Your task to perform on an android device: clear all cookies in the chrome app Image 0: 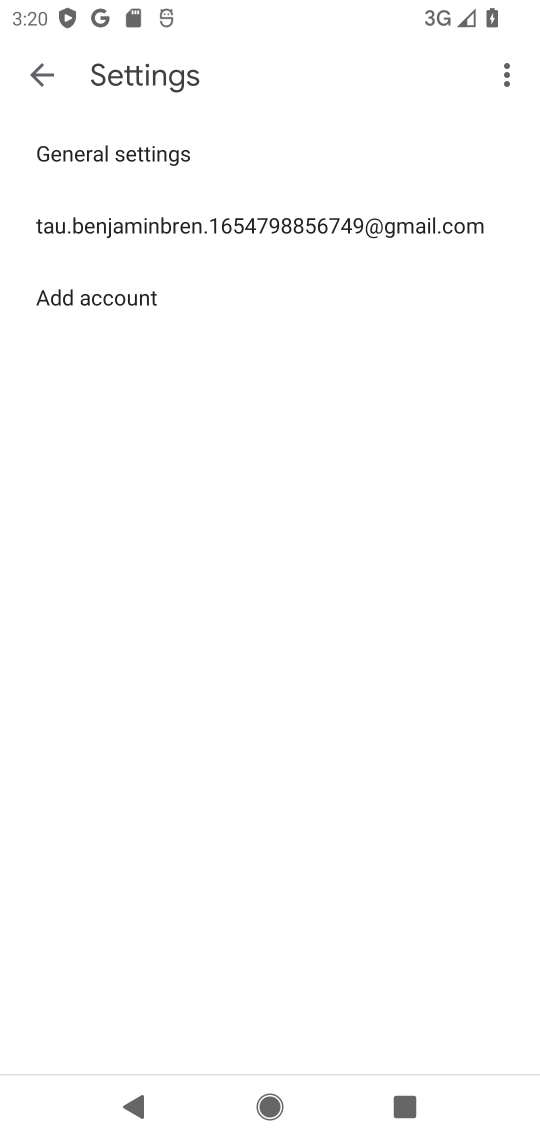
Step 0: press home button
Your task to perform on an android device: clear all cookies in the chrome app Image 1: 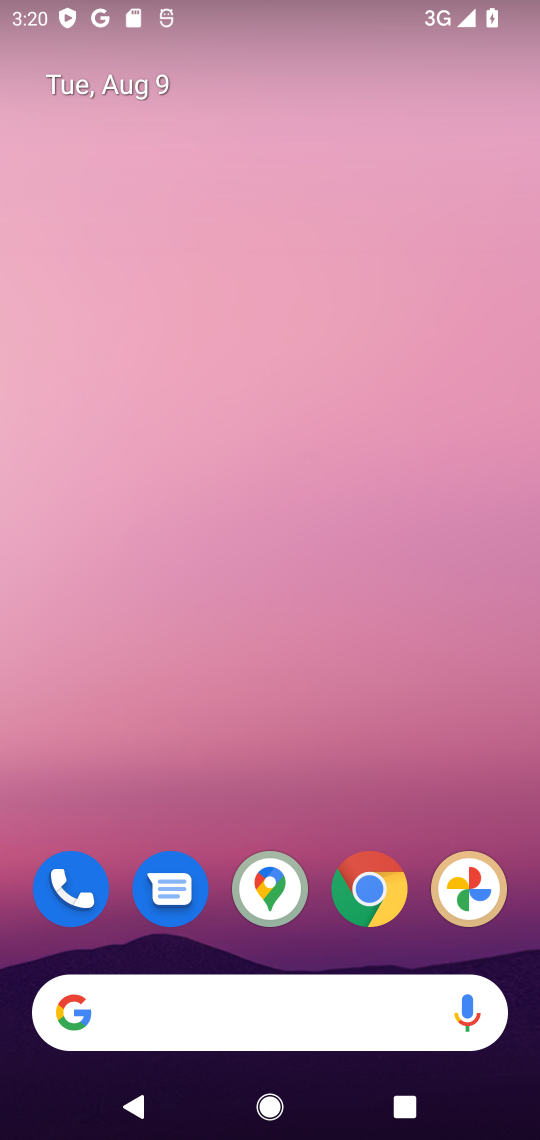
Step 1: click (381, 886)
Your task to perform on an android device: clear all cookies in the chrome app Image 2: 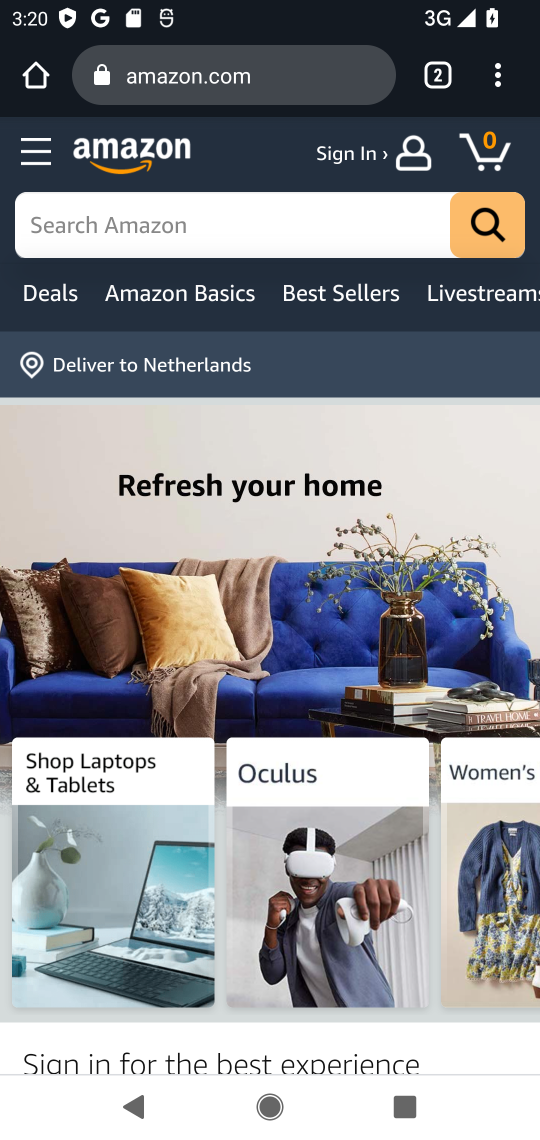
Step 2: click (498, 74)
Your task to perform on an android device: clear all cookies in the chrome app Image 3: 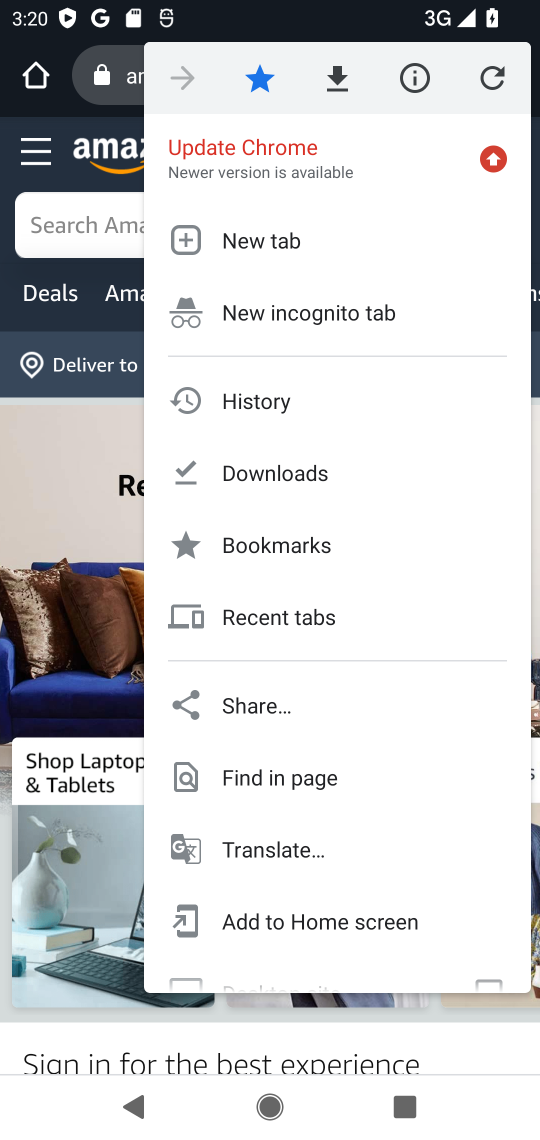
Step 3: drag from (353, 846) to (370, 335)
Your task to perform on an android device: clear all cookies in the chrome app Image 4: 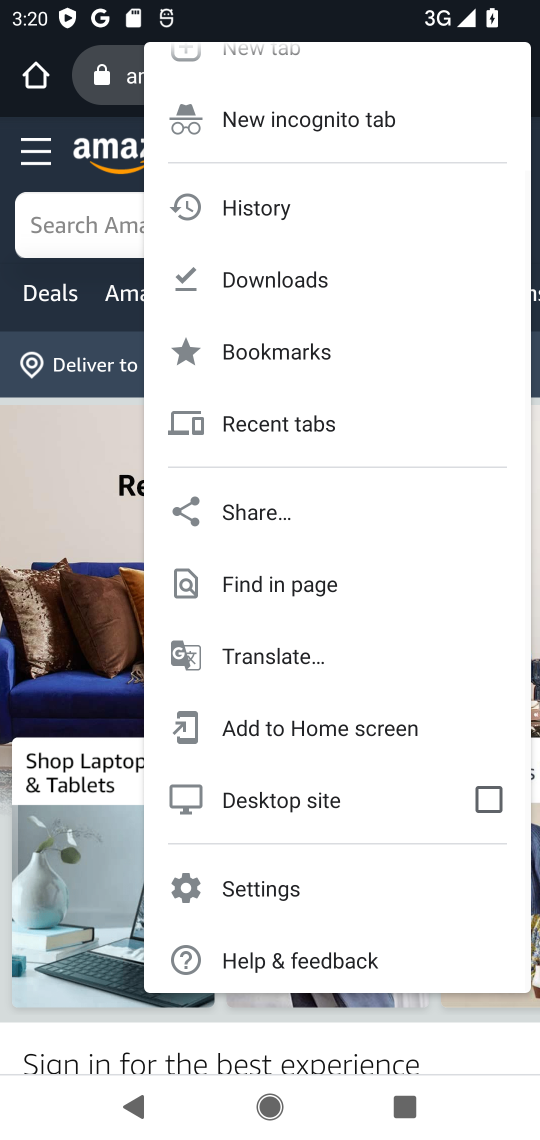
Step 4: click (270, 895)
Your task to perform on an android device: clear all cookies in the chrome app Image 5: 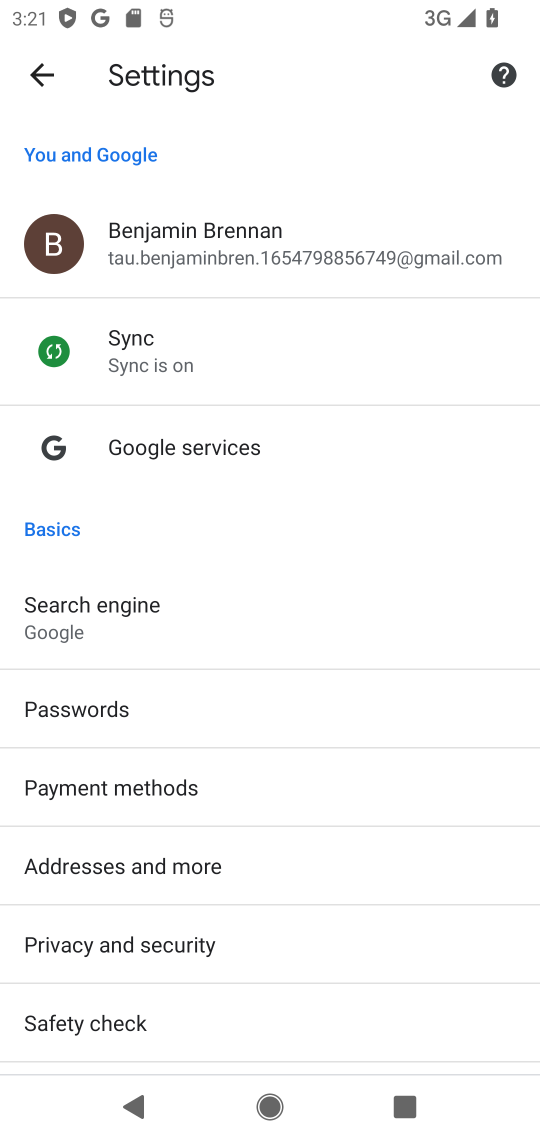
Step 5: click (199, 928)
Your task to perform on an android device: clear all cookies in the chrome app Image 6: 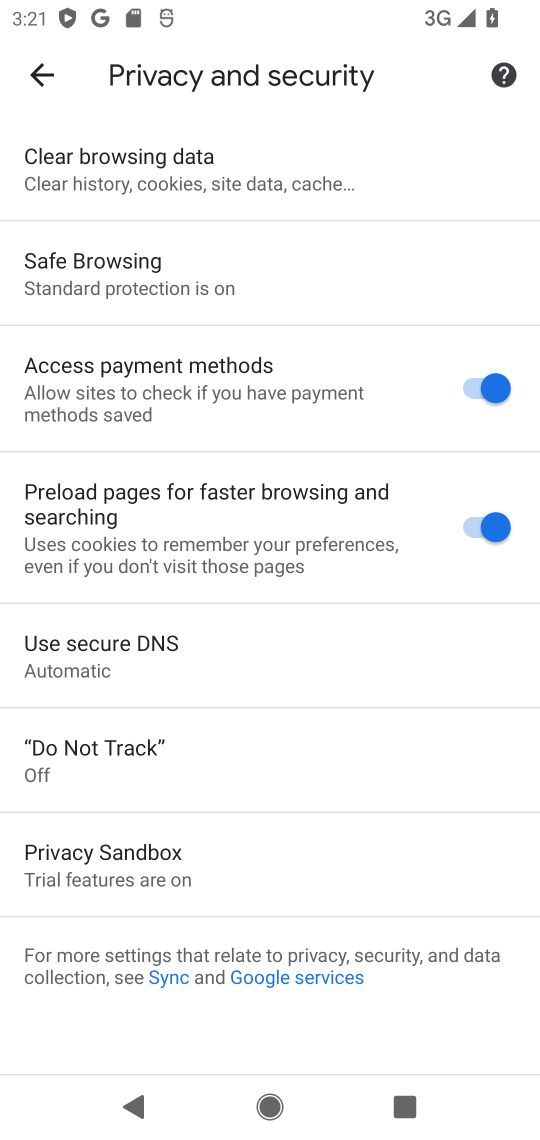
Step 6: drag from (350, 744) to (349, 341)
Your task to perform on an android device: clear all cookies in the chrome app Image 7: 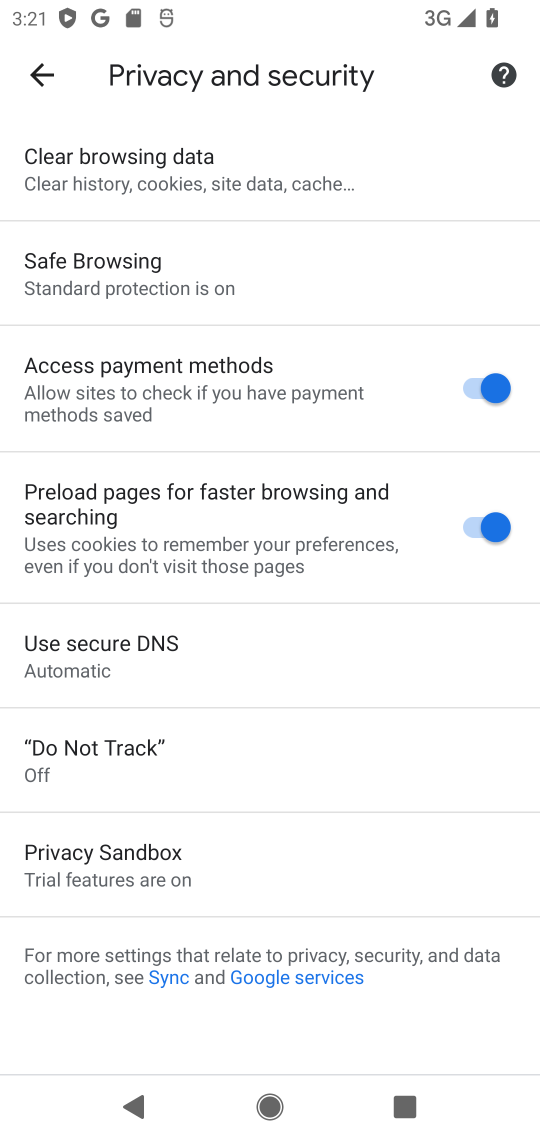
Step 7: drag from (307, 621) to (309, 842)
Your task to perform on an android device: clear all cookies in the chrome app Image 8: 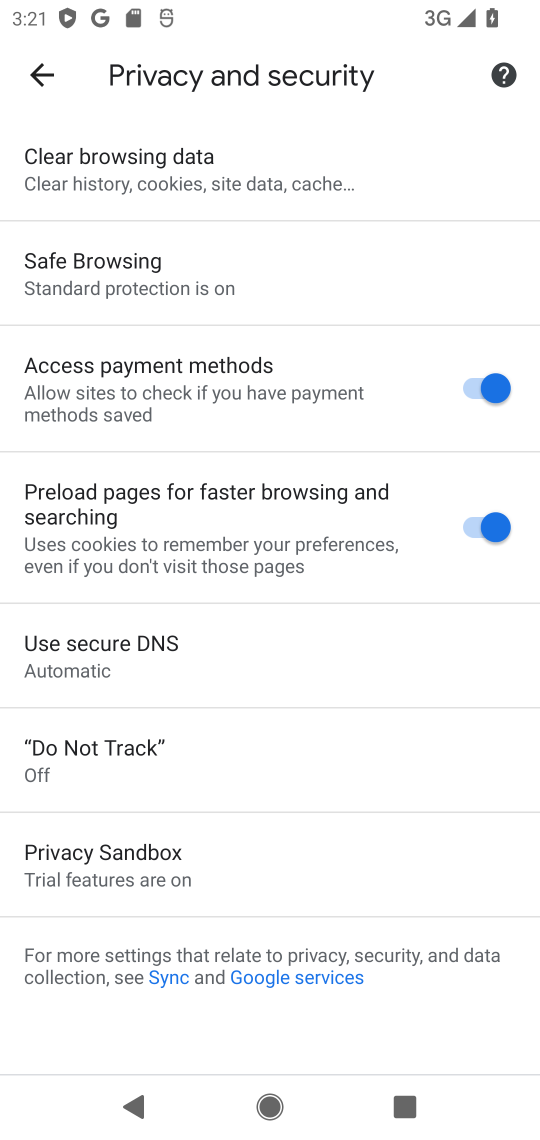
Step 8: click (258, 174)
Your task to perform on an android device: clear all cookies in the chrome app Image 9: 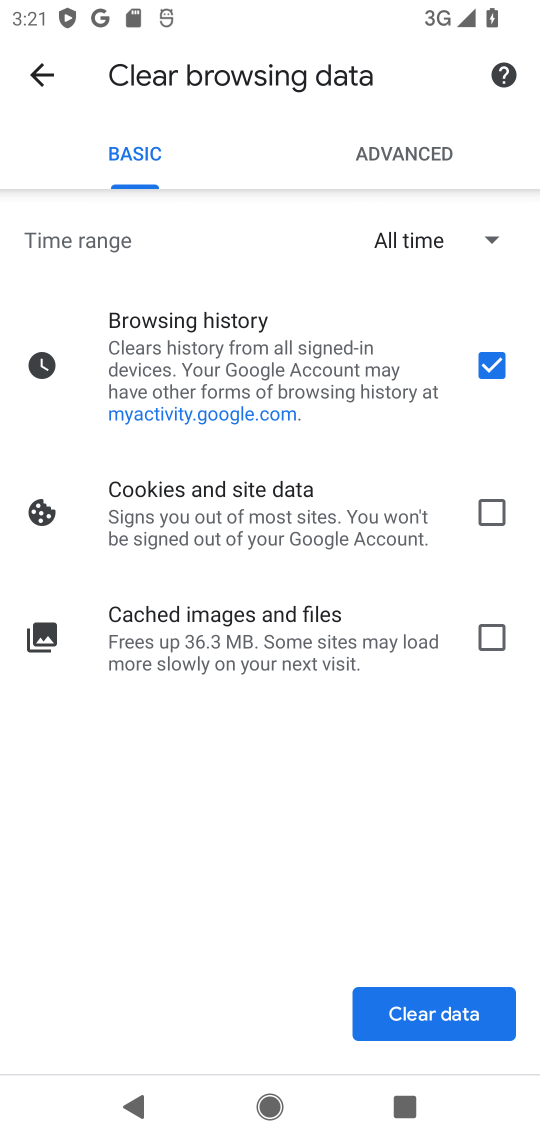
Step 9: click (494, 506)
Your task to perform on an android device: clear all cookies in the chrome app Image 10: 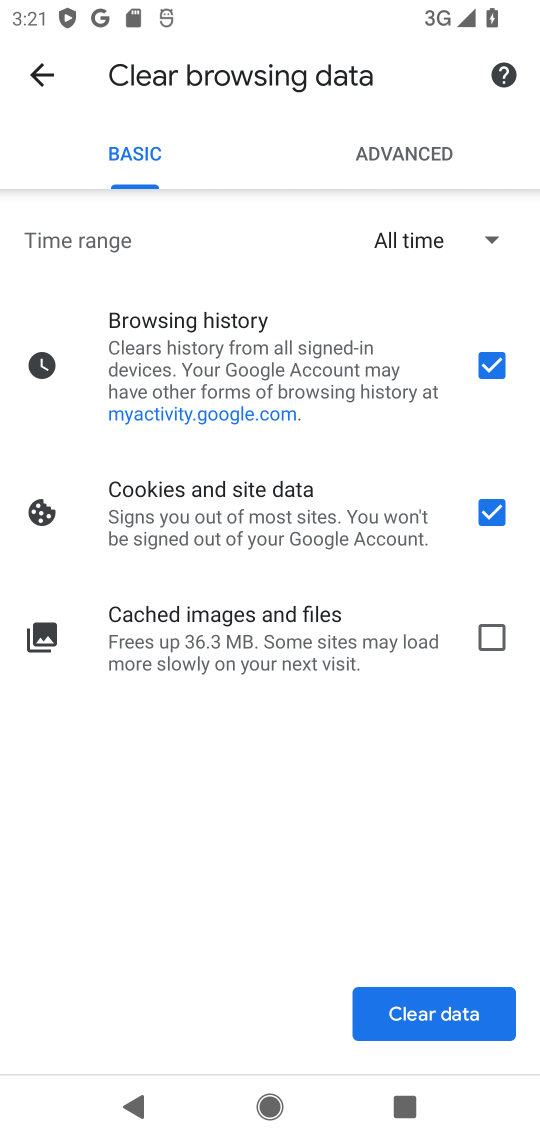
Step 10: click (492, 357)
Your task to perform on an android device: clear all cookies in the chrome app Image 11: 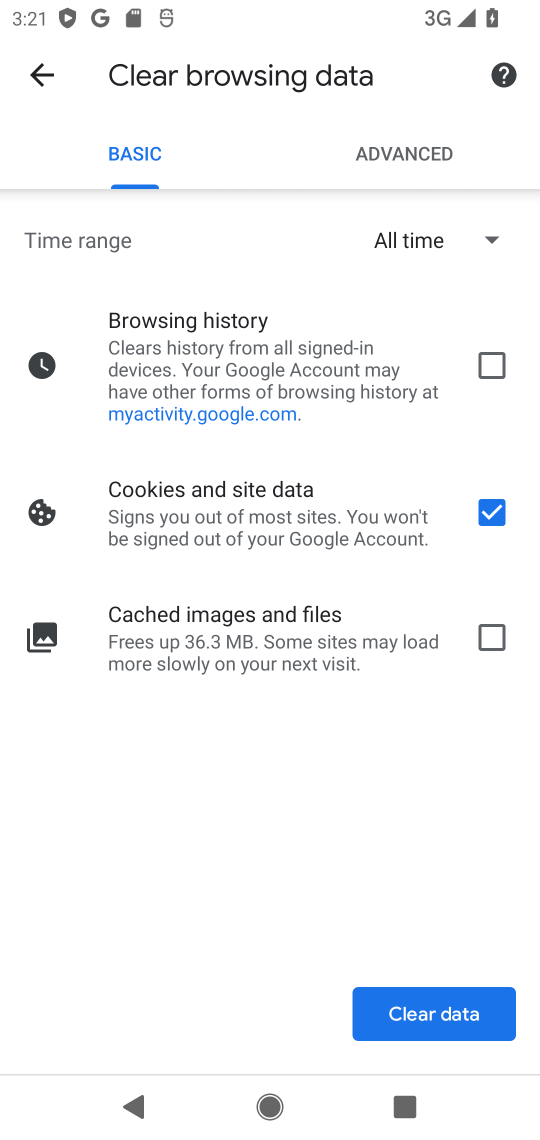
Step 11: click (486, 1018)
Your task to perform on an android device: clear all cookies in the chrome app Image 12: 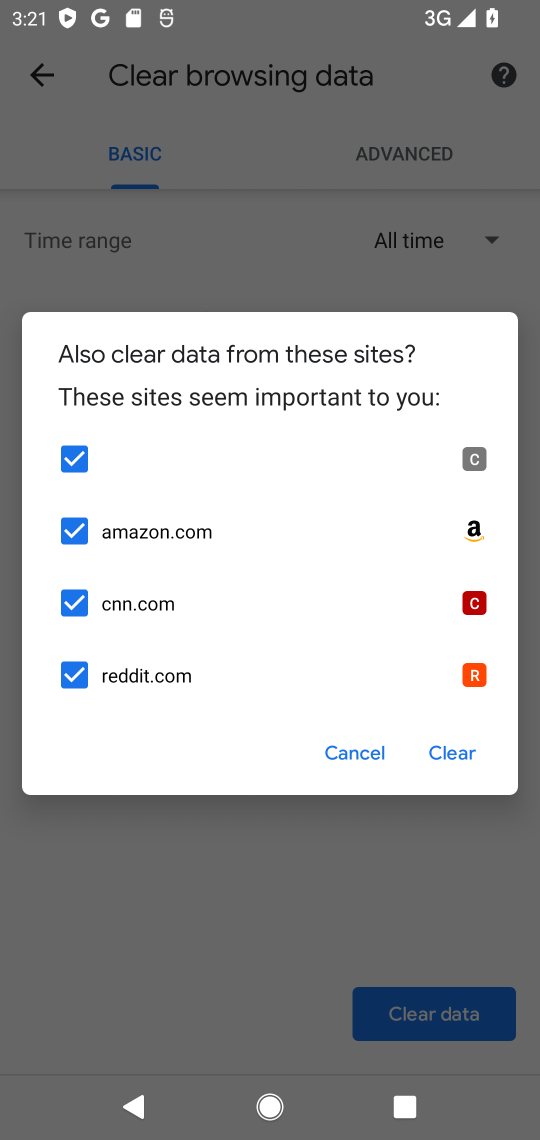
Step 12: click (471, 754)
Your task to perform on an android device: clear all cookies in the chrome app Image 13: 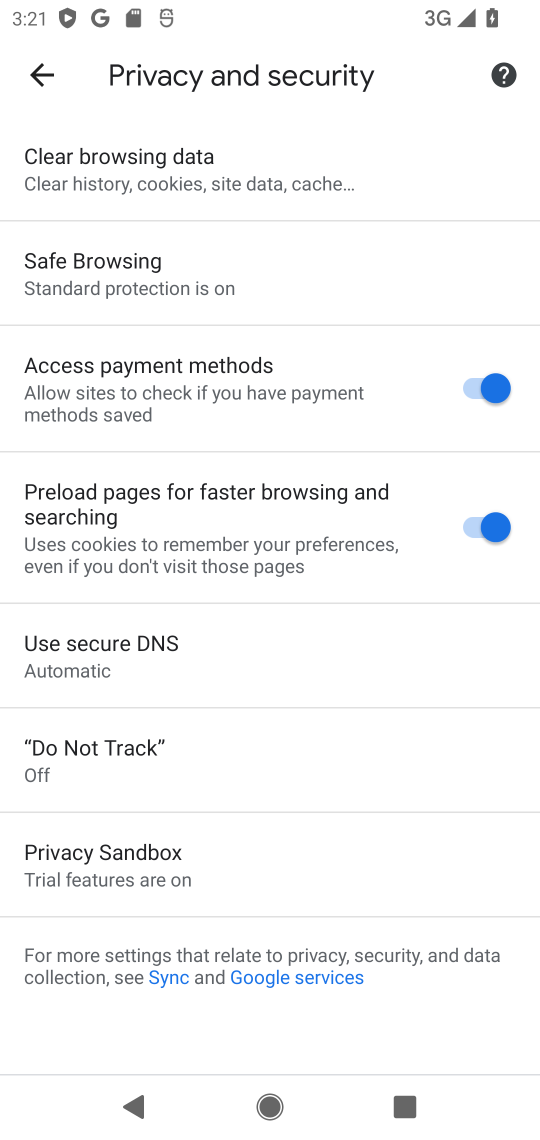
Step 13: task complete